Your task to perform on an android device: Open Google Chrome Image 0: 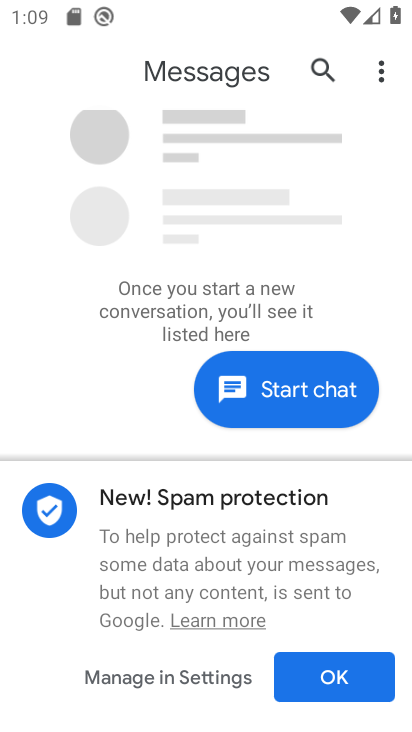
Step 0: press home button
Your task to perform on an android device: Open Google Chrome Image 1: 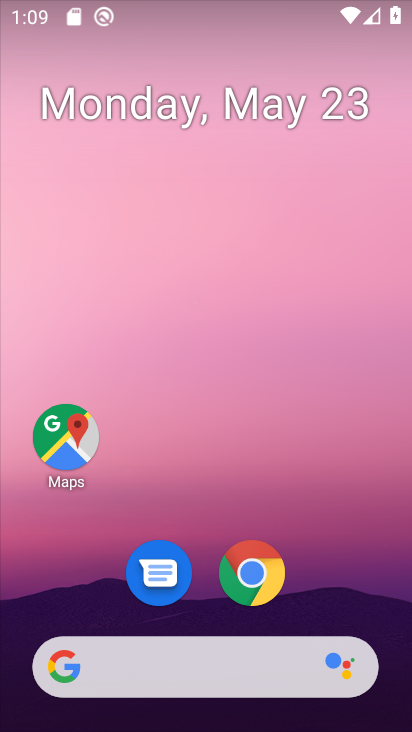
Step 1: click (256, 573)
Your task to perform on an android device: Open Google Chrome Image 2: 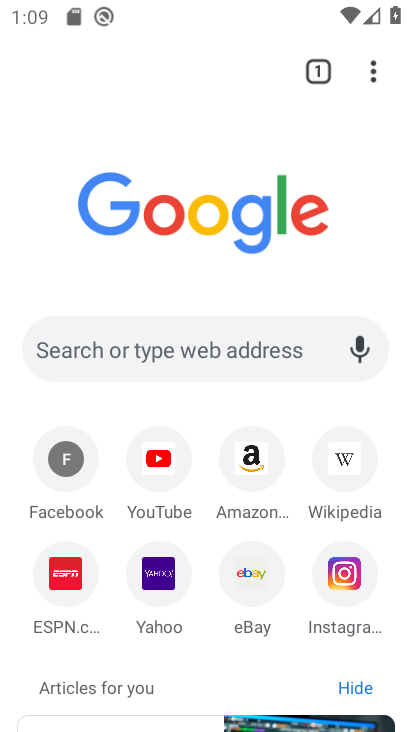
Step 2: task complete